Your task to perform on an android device: manage bookmarks in the chrome app Image 0: 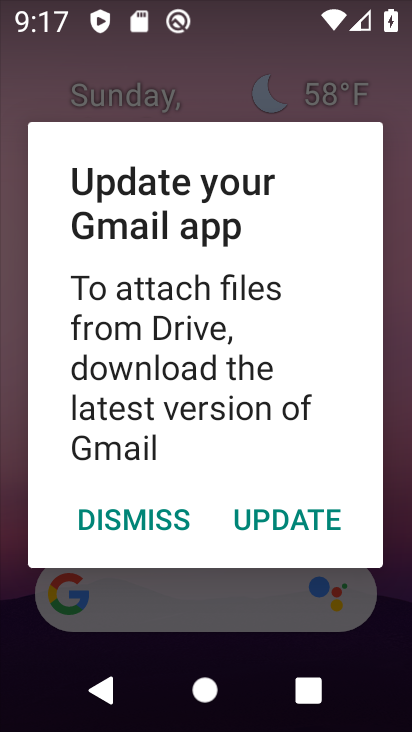
Step 0: press home button
Your task to perform on an android device: manage bookmarks in the chrome app Image 1: 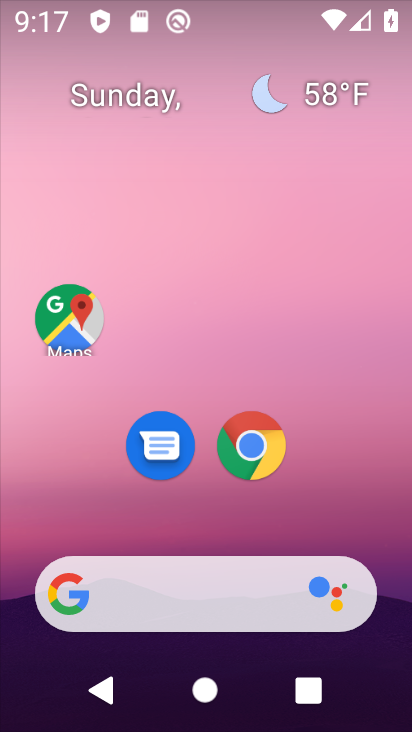
Step 1: drag from (158, 578) to (164, 34)
Your task to perform on an android device: manage bookmarks in the chrome app Image 2: 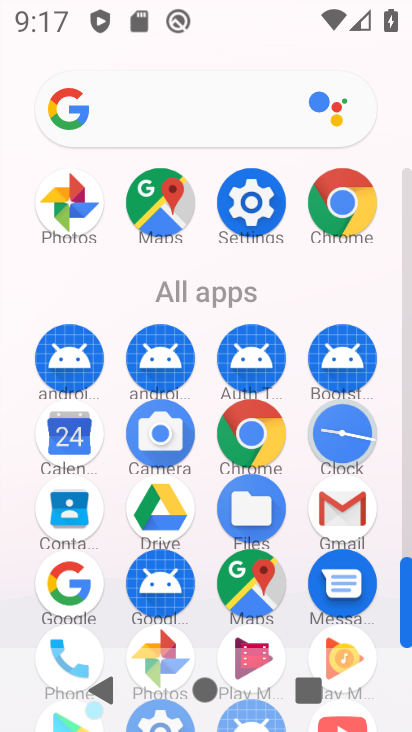
Step 2: click (364, 188)
Your task to perform on an android device: manage bookmarks in the chrome app Image 3: 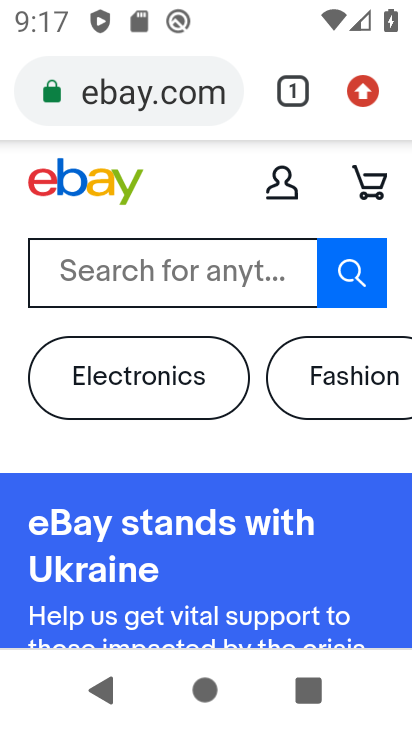
Step 3: click (364, 95)
Your task to perform on an android device: manage bookmarks in the chrome app Image 4: 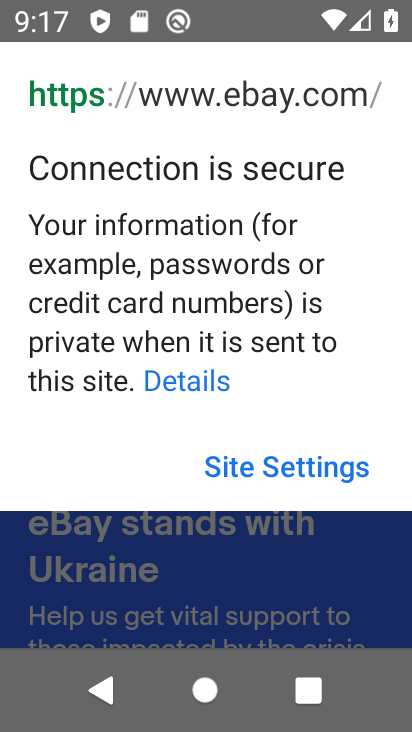
Step 4: click (88, 695)
Your task to perform on an android device: manage bookmarks in the chrome app Image 5: 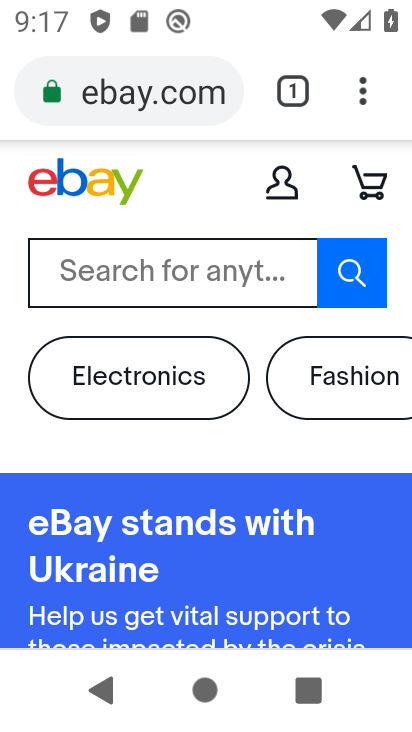
Step 5: drag from (362, 88) to (200, 465)
Your task to perform on an android device: manage bookmarks in the chrome app Image 6: 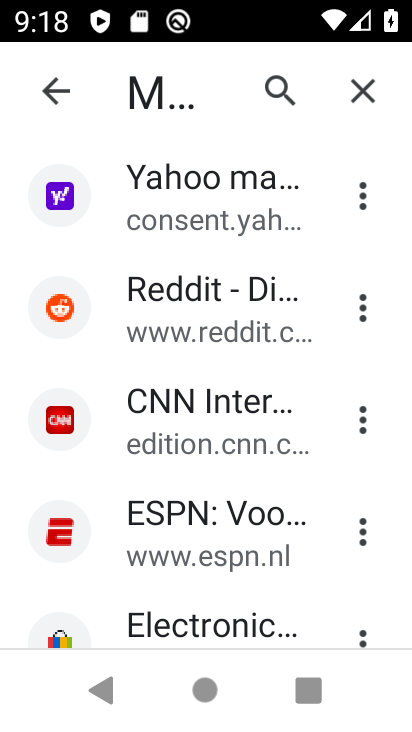
Step 6: click (367, 193)
Your task to perform on an android device: manage bookmarks in the chrome app Image 7: 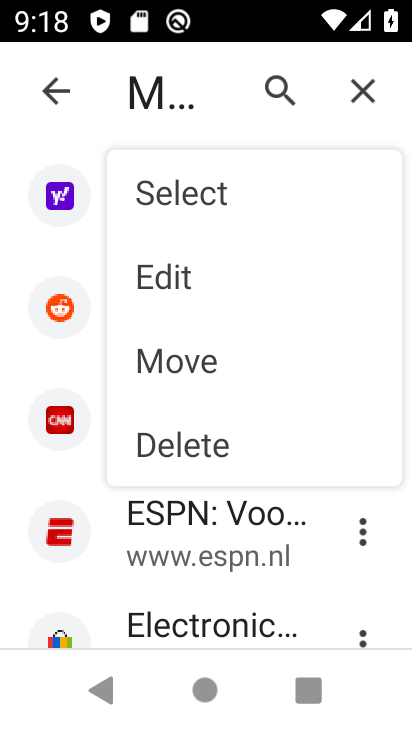
Step 7: click (257, 451)
Your task to perform on an android device: manage bookmarks in the chrome app Image 8: 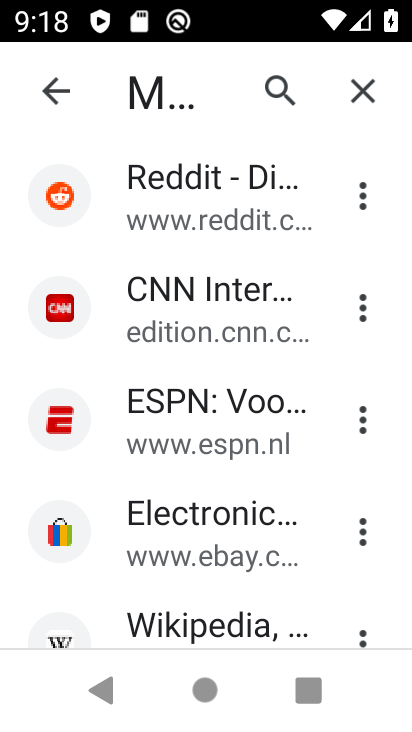
Step 8: task complete